Your task to perform on an android device: turn notification dots on Image 0: 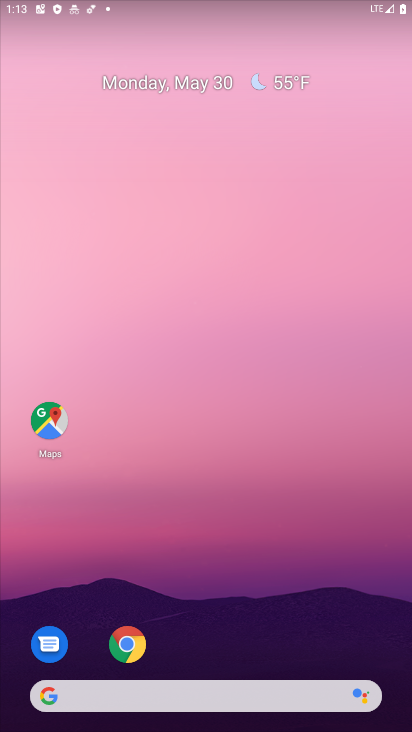
Step 0: drag from (289, 631) to (167, 38)
Your task to perform on an android device: turn notification dots on Image 1: 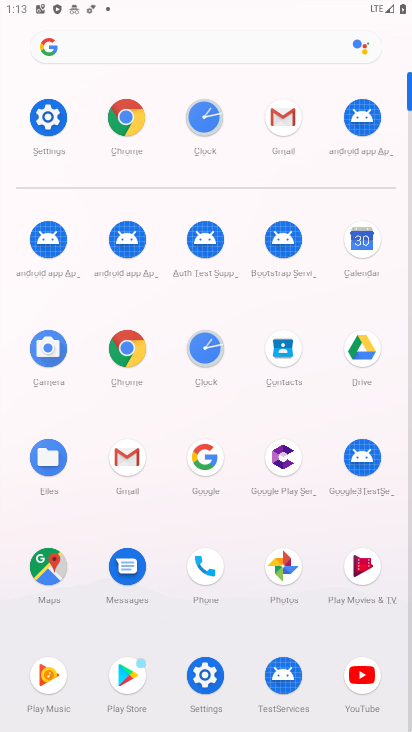
Step 1: click (59, 107)
Your task to perform on an android device: turn notification dots on Image 2: 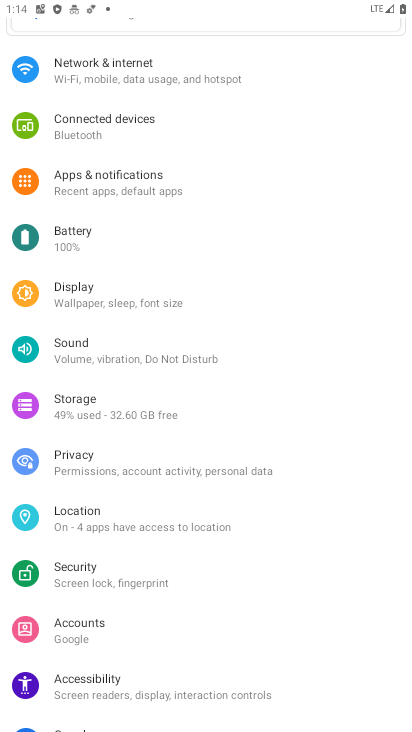
Step 2: click (180, 167)
Your task to perform on an android device: turn notification dots on Image 3: 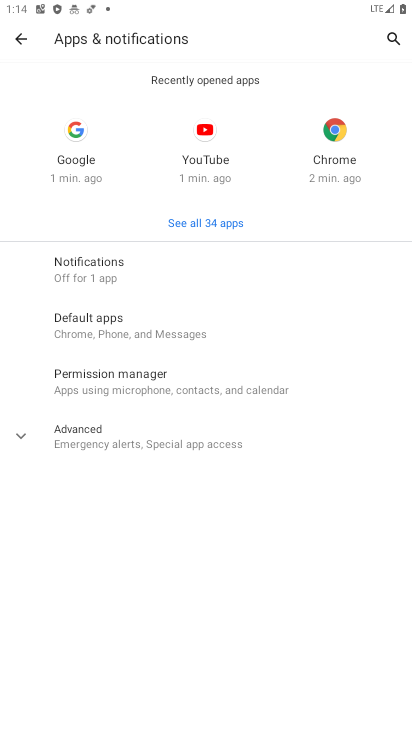
Step 3: press home button
Your task to perform on an android device: turn notification dots on Image 4: 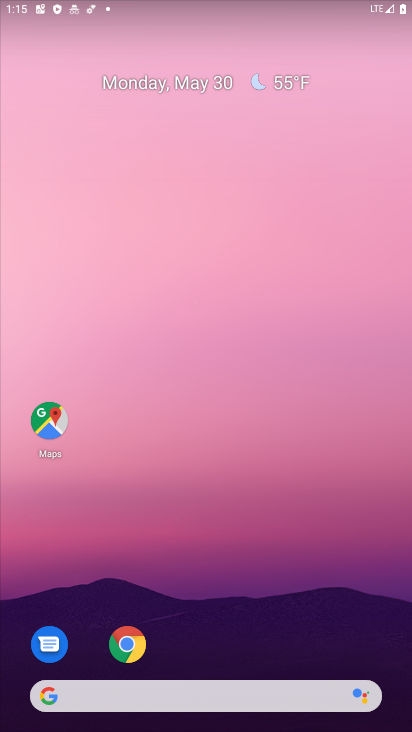
Step 4: drag from (264, 584) to (66, 67)
Your task to perform on an android device: turn notification dots on Image 5: 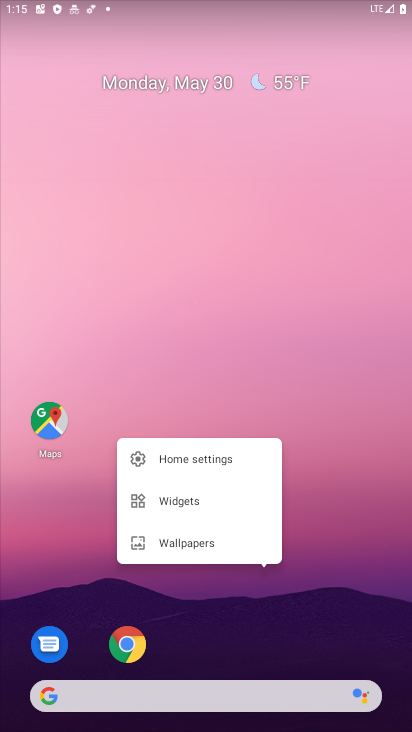
Step 5: click (324, 483)
Your task to perform on an android device: turn notification dots on Image 6: 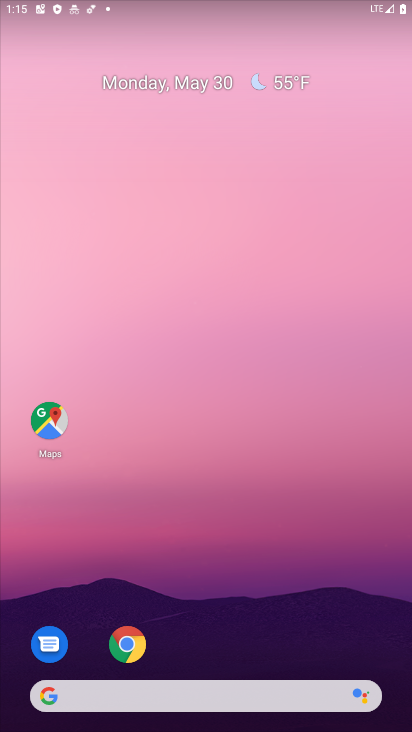
Step 6: drag from (316, 577) to (141, 1)
Your task to perform on an android device: turn notification dots on Image 7: 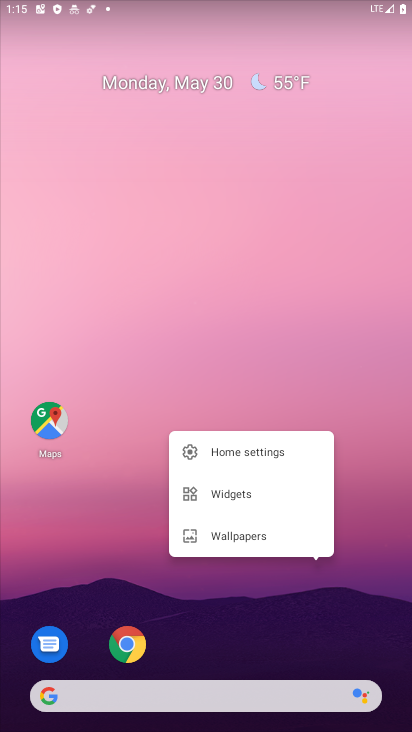
Step 7: click (339, 633)
Your task to perform on an android device: turn notification dots on Image 8: 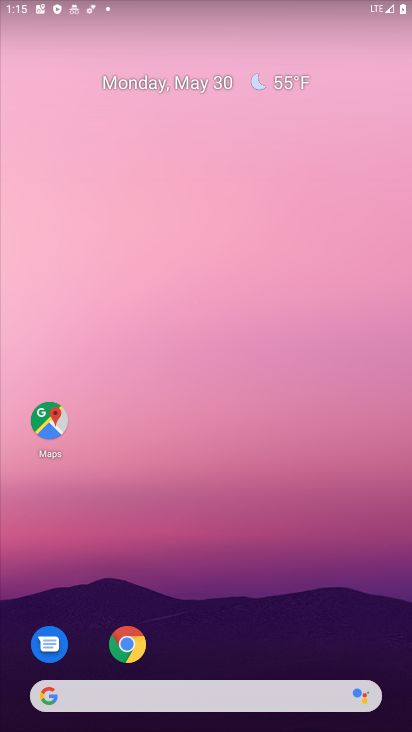
Step 8: drag from (278, 569) to (225, 71)
Your task to perform on an android device: turn notification dots on Image 9: 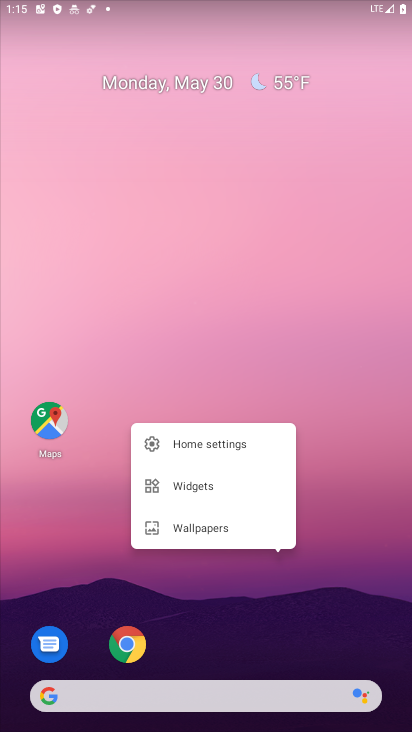
Step 9: click (342, 313)
Your task to perform on an android device: turn notification dots on Image 10: 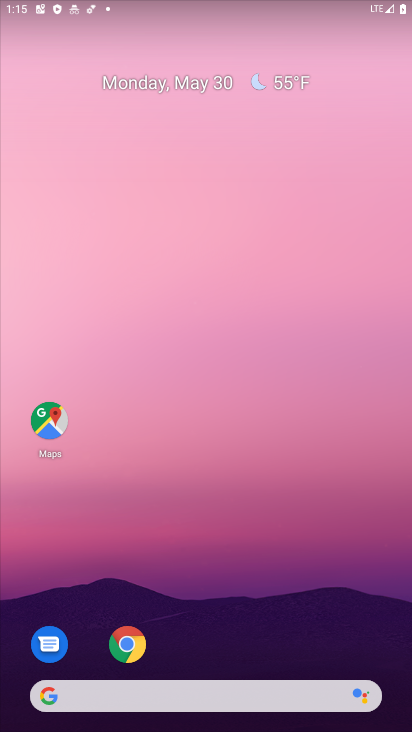
Step 10: drag from (233, 663) to (243, 204)
Your task to perform on an android device: turn notification dots on Image 11: 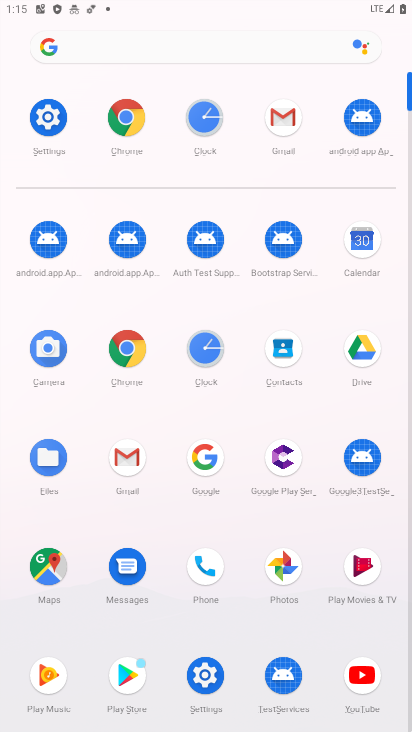
Step 11: click (61, 160)
Your task to perform on an android device: turn notification dots on Image 12: 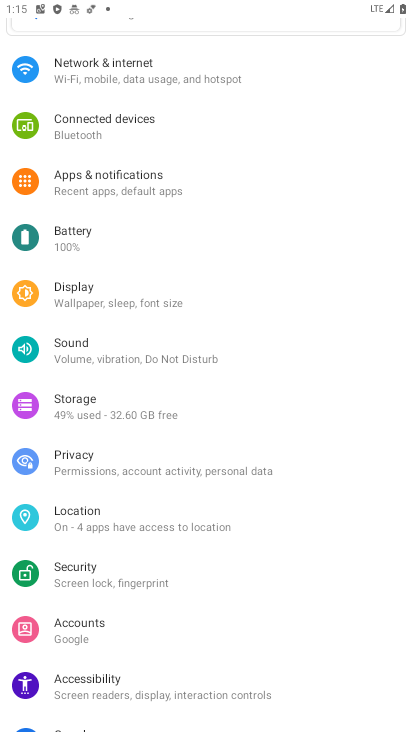
Step 12: click (90, 181)
Your task to perform on an android device: turn notification dots on Image 13: 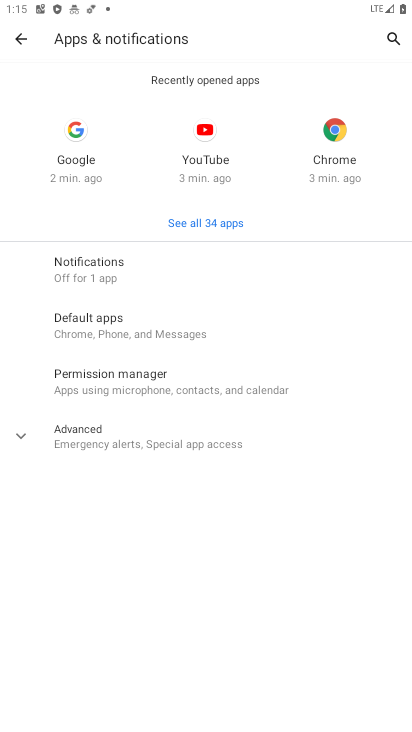
Step 13: task complete